Your task to perform on an android device: Go to CNN.com Image 0: 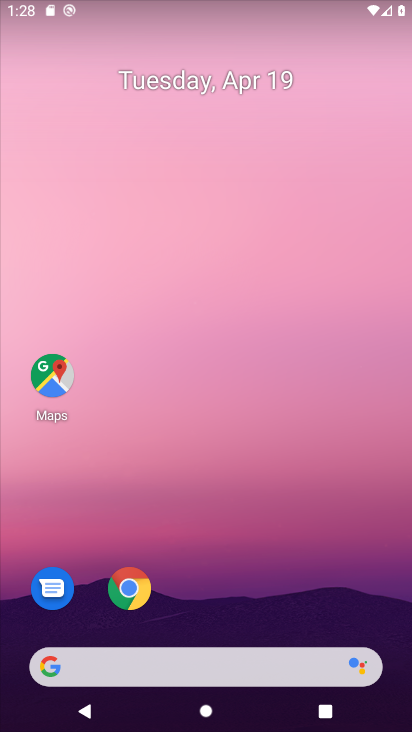
Step 0: click (135, 601)
Your task to perform on an android device: Go to CNN.com Image 1: 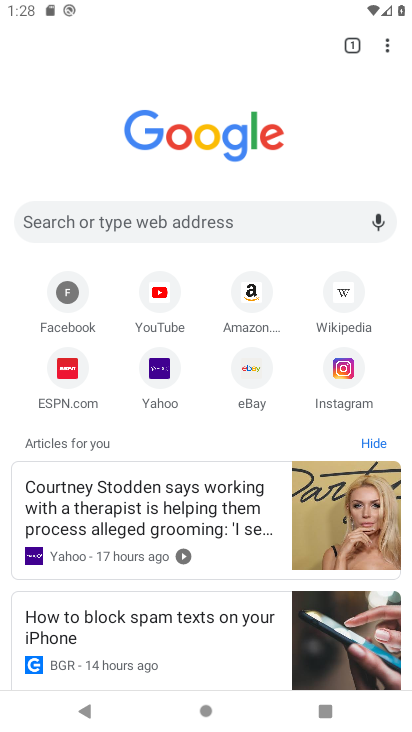
Step 1: click (201, 215)
Your task to perform on an android device: Go to CNN.com Image 2: 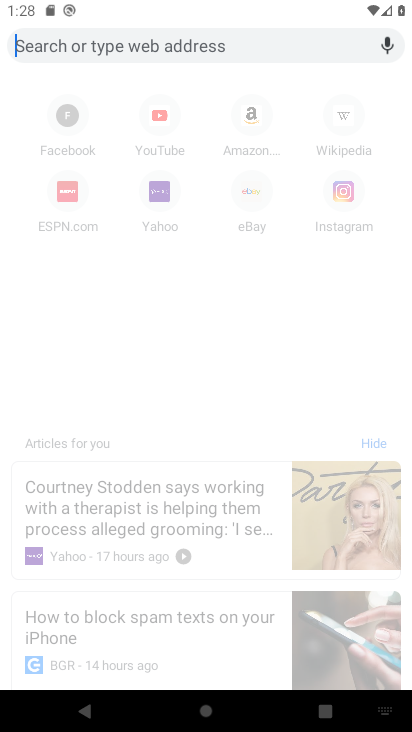
Step 2: type "CNN.com"
Your task to perform on an android device: Go to CNN.com Image 3: 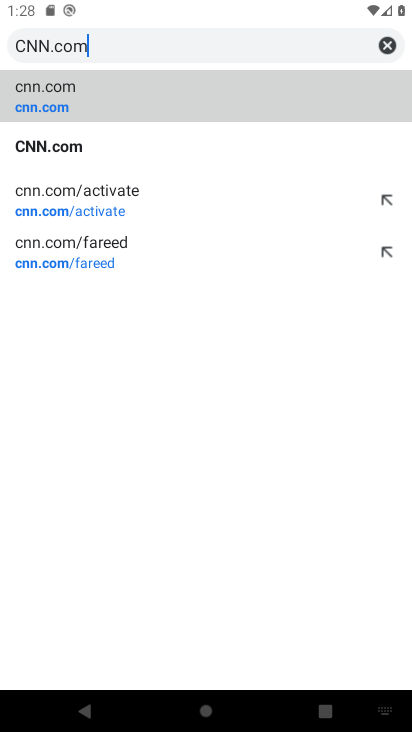
Step 3: click (120, 100)
Your task to perform on an android device: Go to CNN.com Image 4: 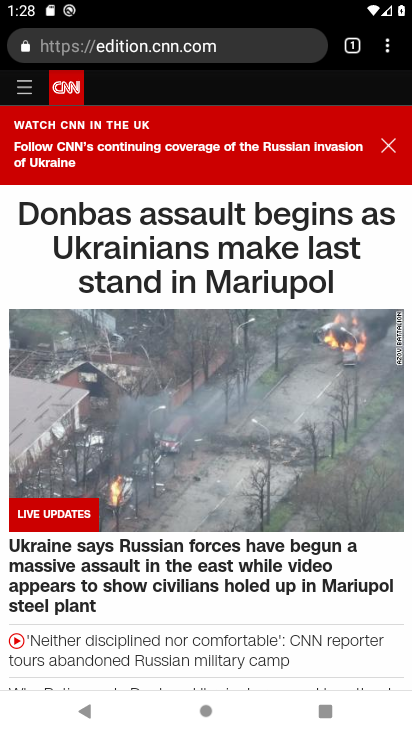
Step 4: task complete